Your task to perform on an android device: Go to accessibility settings Image 0: 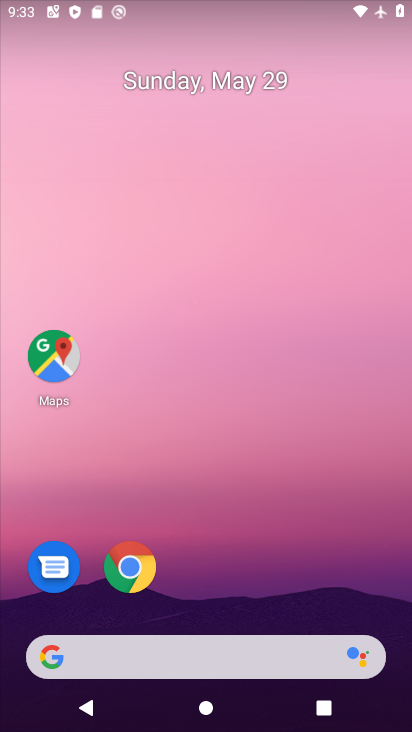
Step 0: drag from (396, 616) to (321, 145)
Your task to perform on an android device: Go to accessibility settings Image 1: 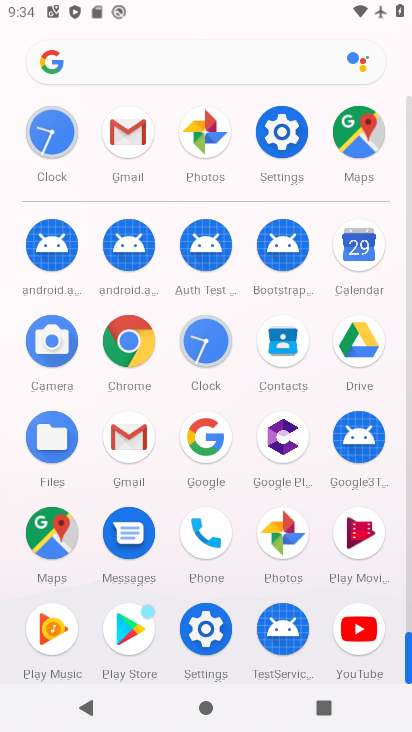
Step 1: click (207, 627)
Your task to perform on an android device: Go to accessibility settings Image 2: 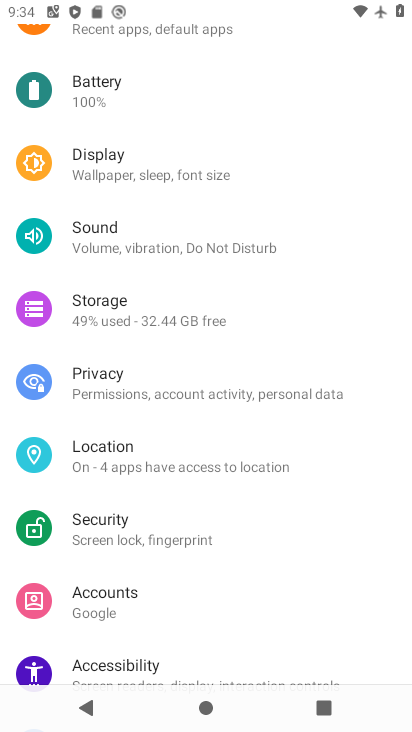
Step 2: drag from (313, 616) to (341, 224)
Your task to perform on an android device: Go to accessibility settings Image 3: 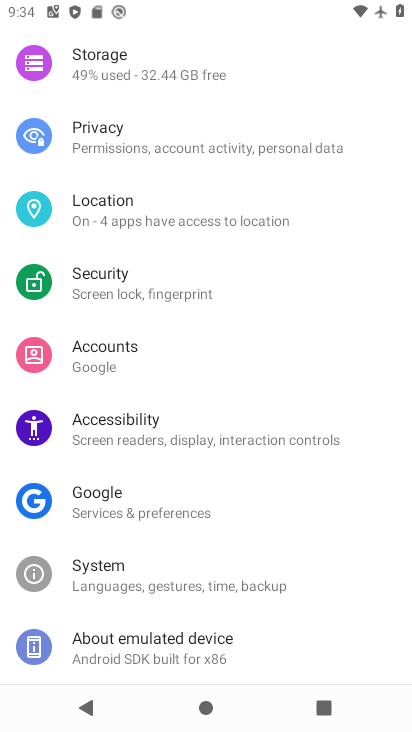
Step 3: click (118, 415)
Your task to perform on an android device: Go to accessibility settings Image 4: 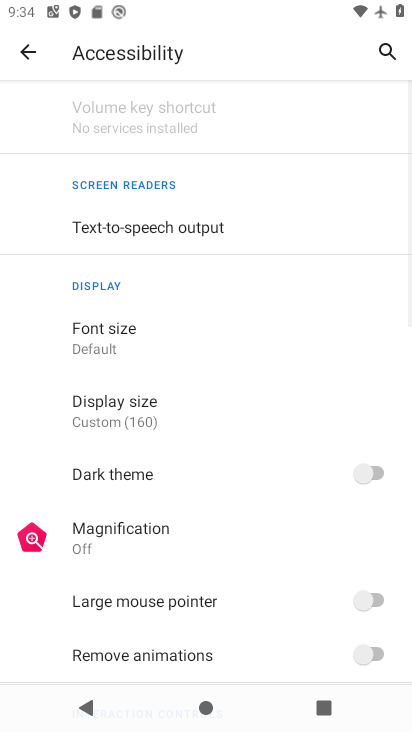
Step 4: task complete